Your task to perform on an android device: turn off location history Image 0: 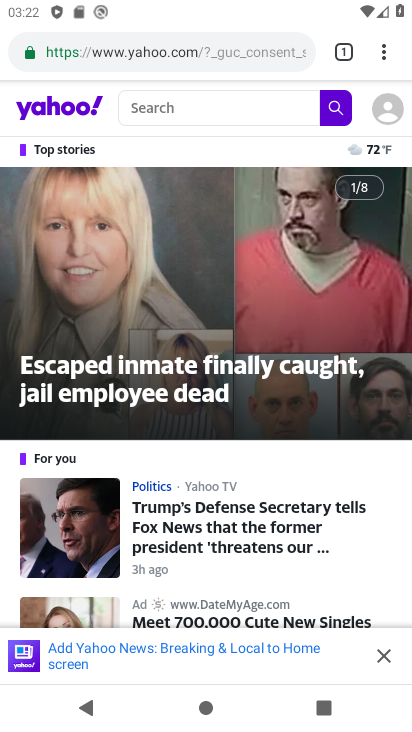
Step 0: press home button
Your task to perform on an android device: turn off location history Image 1: 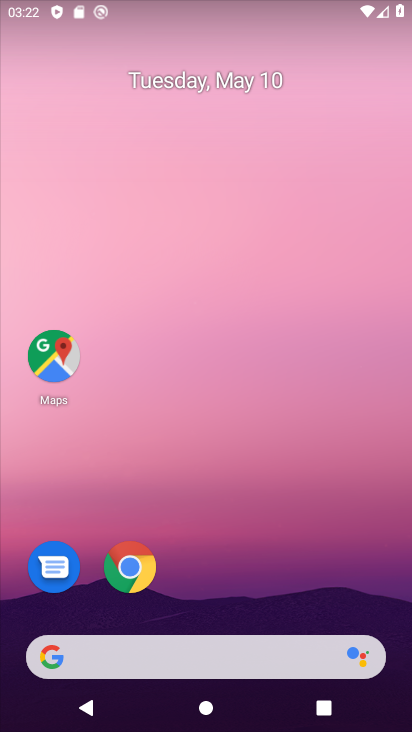
Step 1: drag from (254, 483) to (262, 64)
Your task to perform on an android device: turn off location history Image 2: 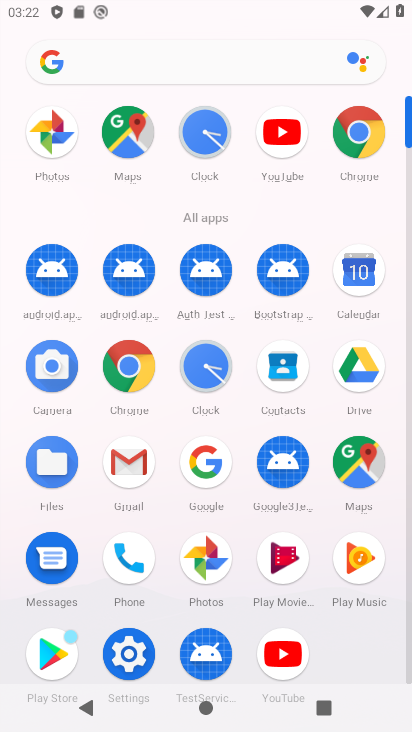
Step 2: click (135, 653)
Your task to perform on an android device: turn off location history Image 3: 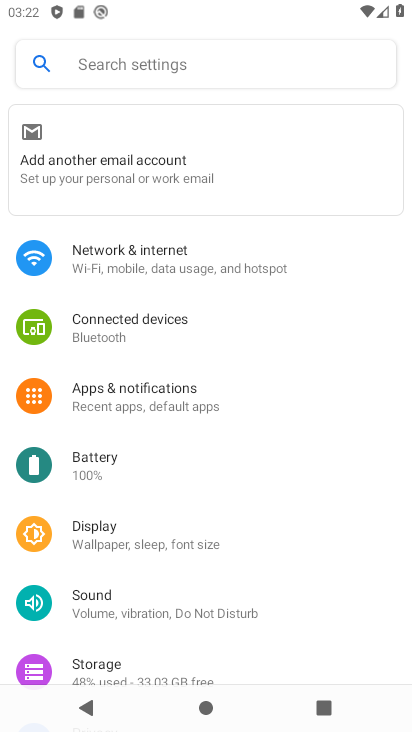
Step 3: drag from (136, 605) to (134, 264)
Your task to perform on an android device: turn off location history Image 4: 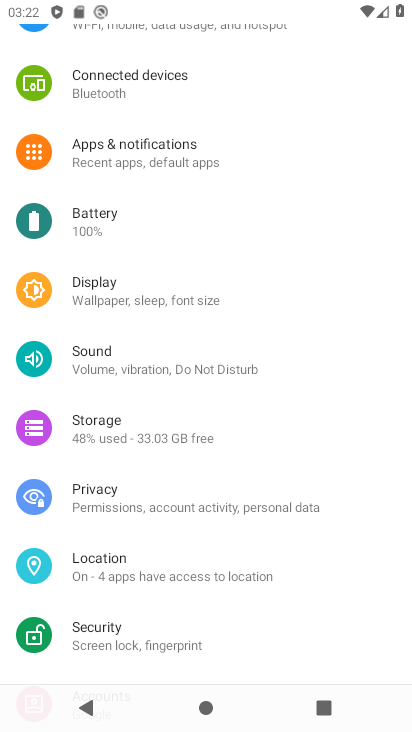
Step 4: click (93, 568)
Your task to perform on an android device: turn off location history Image 5: 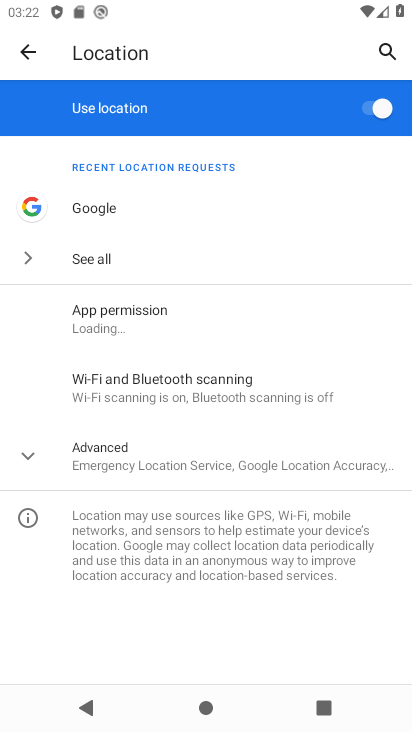
Step 5: click (137, 452)
Your task to perform on an android device: turn off location history Image 6: 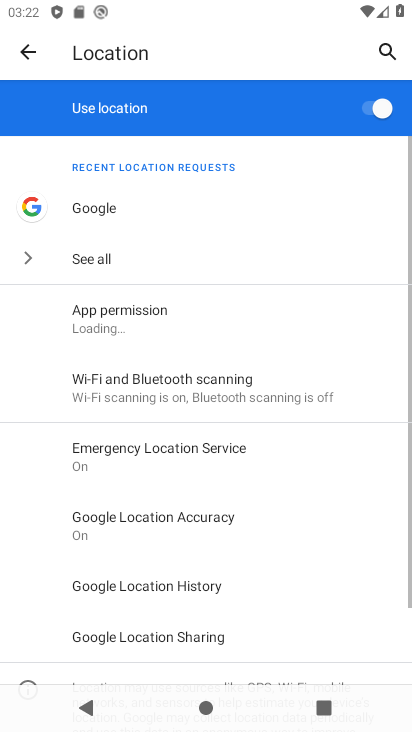
Step 6: drag from (202, 551) to (201, 370)
Your task to perform on an android device: turn off location history Image 7: 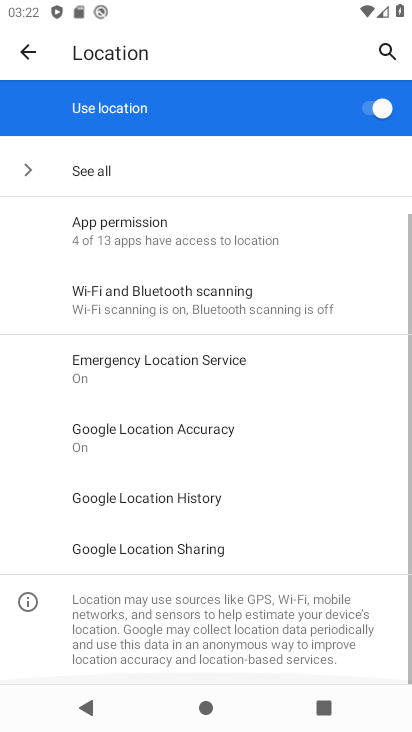
Step 7: click (147, 489)
Your task to perform on an android device: turn off location history Image 8: 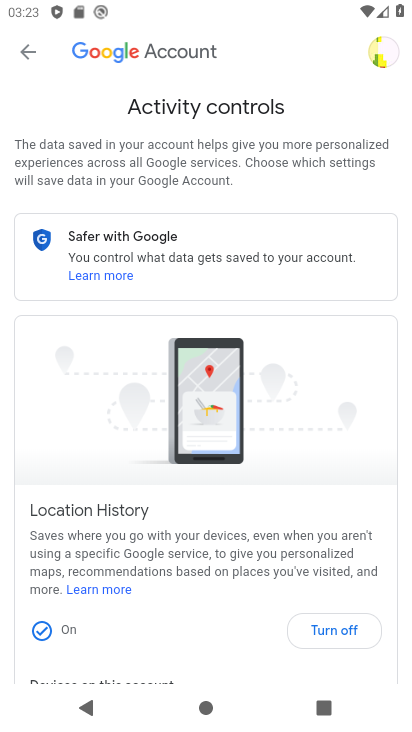
Step 8: click (323, 633)
Your task to perform on an android device: turn off location history Image 9: 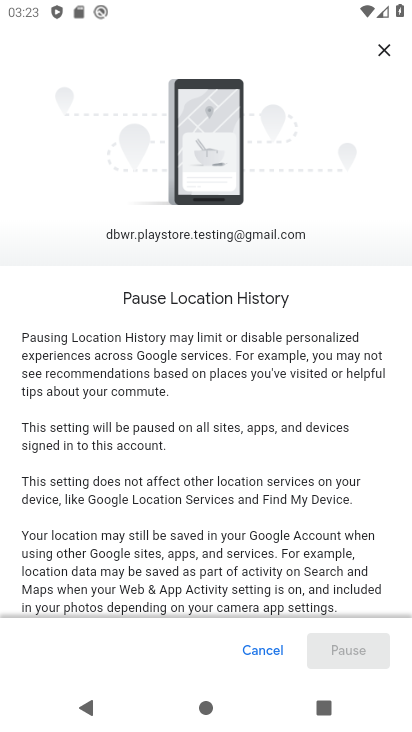
Step 9: drag from (323, 633) to (296, 171)
Your task to perform on an android device: turn off location history Image 10: 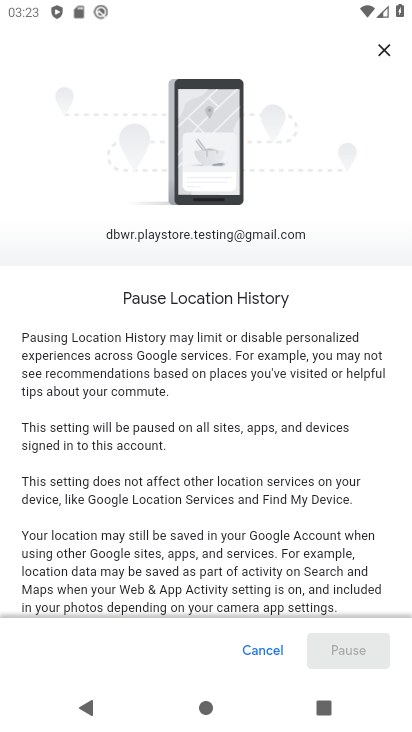
Step 10: drag from (286, 507) to (297, 32)
Your task to perform on an android device: turn off location history Image 11: 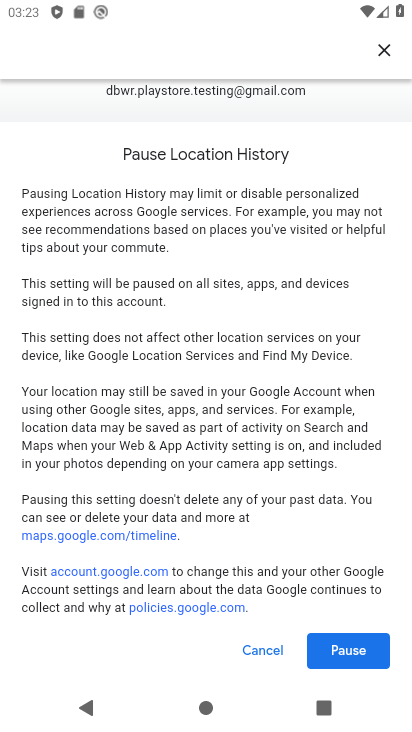
Step 11: click (349, 645)
Your task to perform on an android device: turn off location history Image 12: 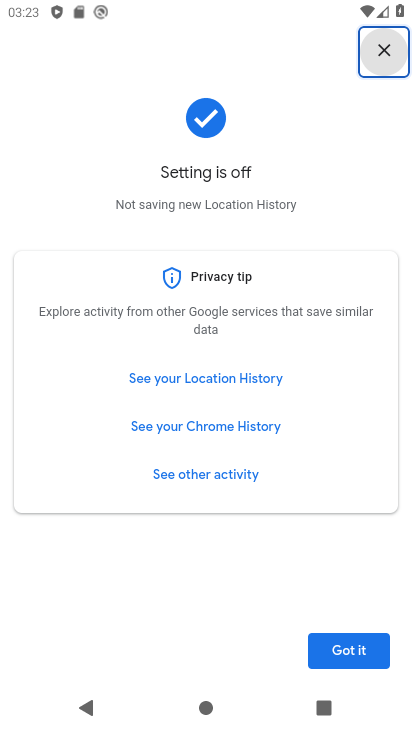
Step 12: click (349, 645)
Your task to perform on an android device: turn off location history Image 13: 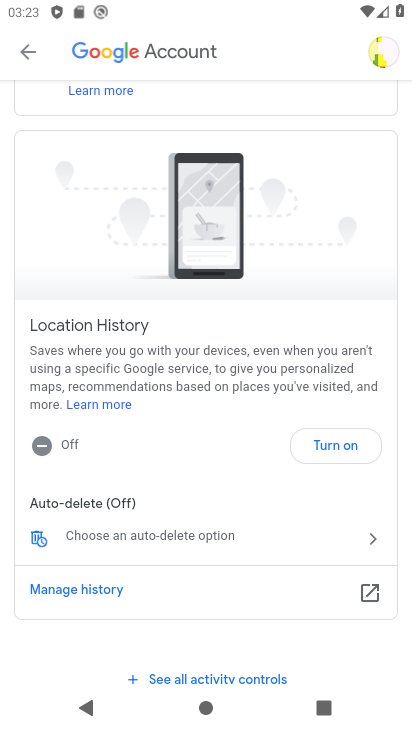
Step 13: task complete